Your task to perform on an android device: Set the phone to "Do not disturb". Image 0: 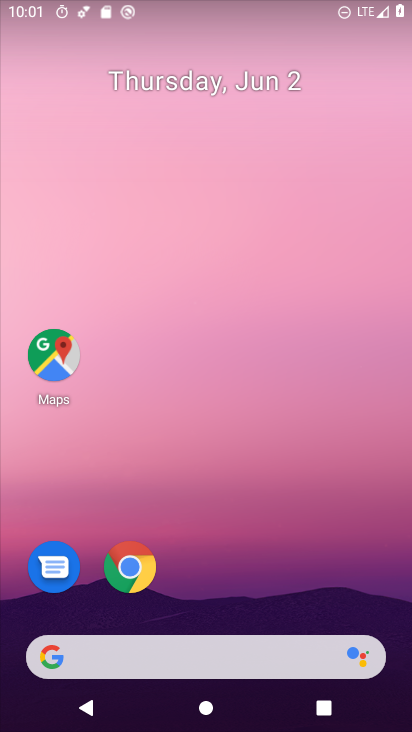
Step 0: drag from (345, 536) to (317, 104)
Your task to perform on an android device: Set the phone to "Do not disturb". Image 1: 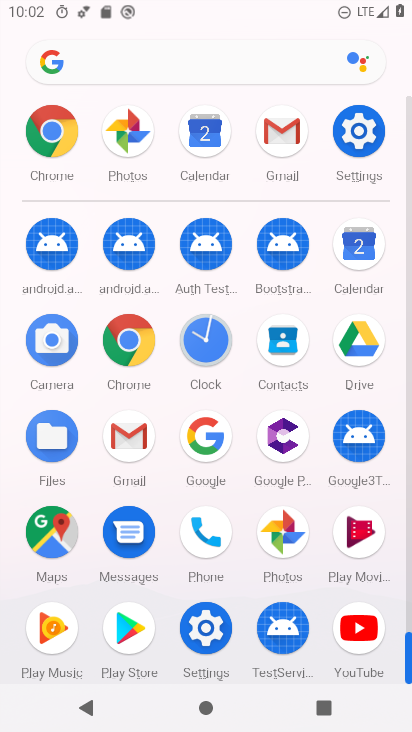
Step 1: click (364, 127)
Your task to perform on an android device: Set the phone to "Do not disturb". Image 2: 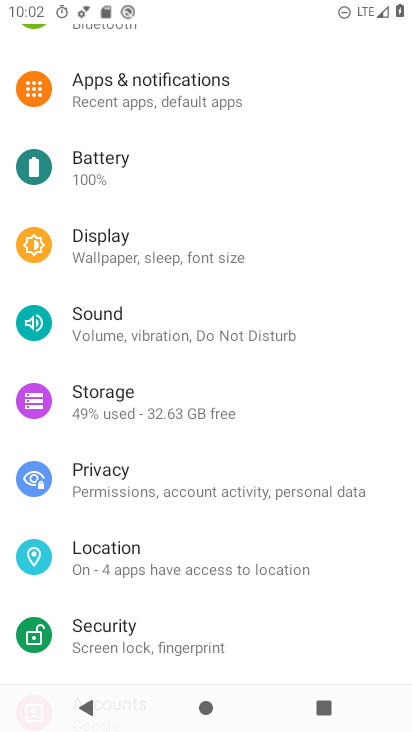
Step 2: drag from (240, 632) to (309, 301)
Your task to perform on an android device: Set the phone to "Do not disturb". Image 3: 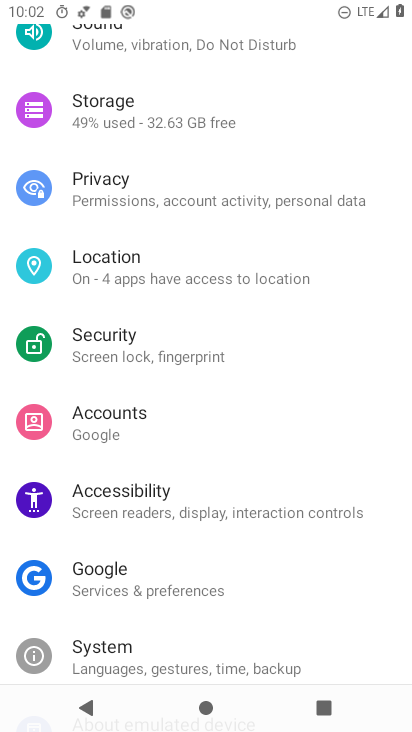
Step 3: drag from (255, 601) to (297, 295)
Your task to perform on an android device: Set the phone to "Do not disturb". Image 4: 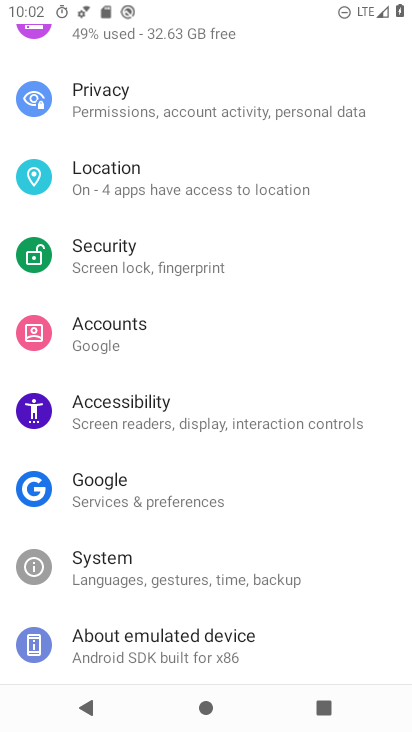
Step 4: drag from (287, 267) to (305, 554)
Your task to perform on an android device: Set the phone to "Do not disturb". Image 5: 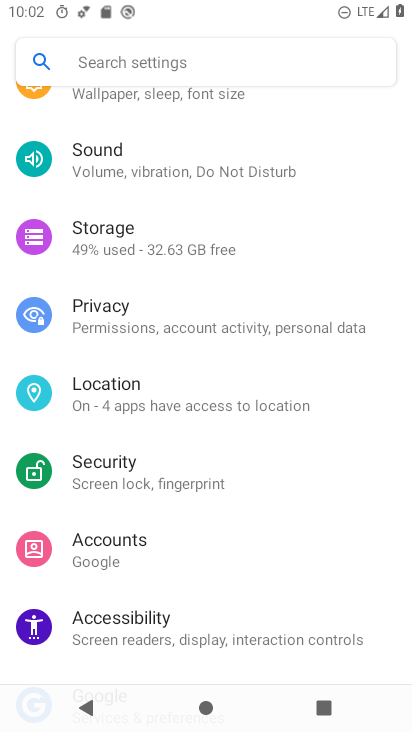
Step 5: click (171, 172)
Your task to perform on an android device: Set the phone to "Do not disturb". Image 6: 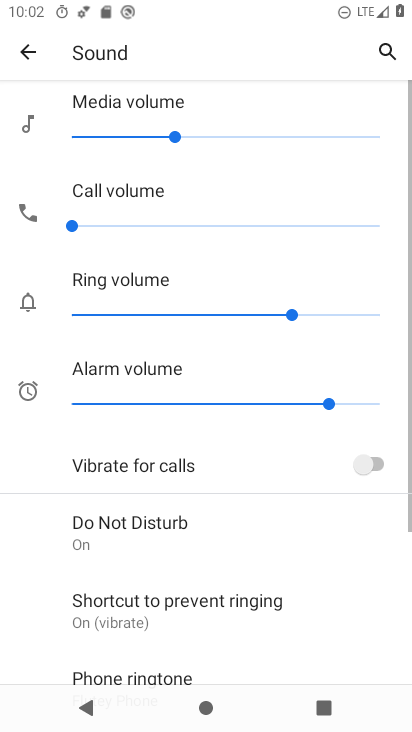
Step 6: drag from (243, 582) to (271, 376)
Your task to perform on an android device: Set the phone to "Do not disturb". Image 7: 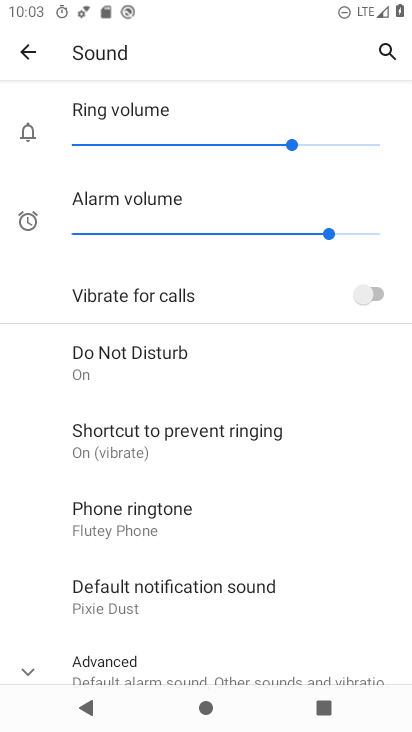
Step 7: click (175, 359)
Your task to perform on an android device: Set the phone to "Do not disturb". Image 8: 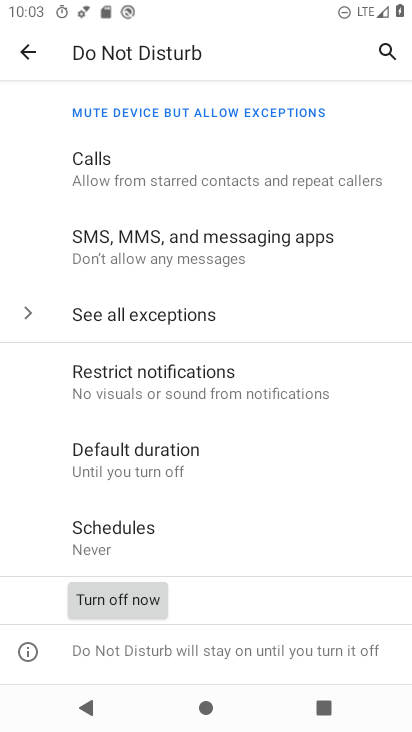
Step 8: click (128, 602)
Your task to perform on an android device: Set the phone to "Do not disturb". Image 9: 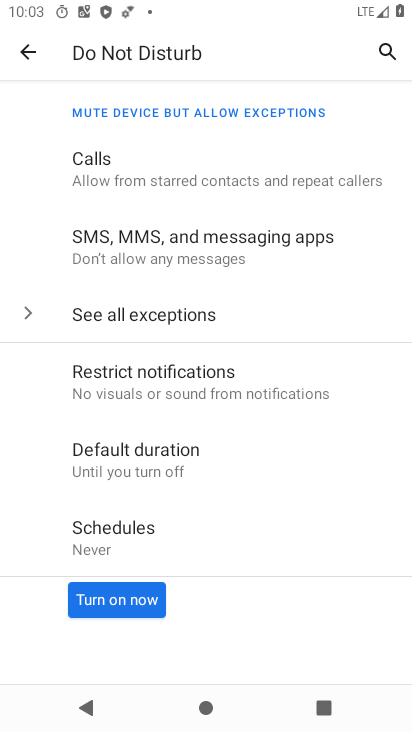
Step 9: task complete